Your task to perform on an android device: Empty the shopping cart on costco. Image 0: 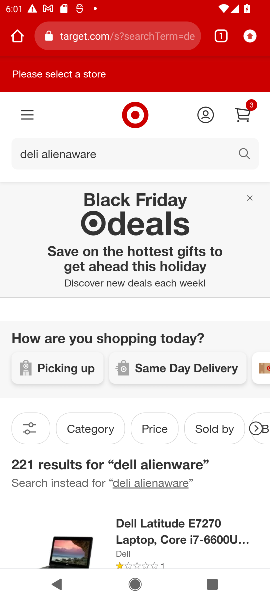
Step 0: click (82, 46)
Your task to perform on an android device: Empty the shopping cart on costco. Image 1: 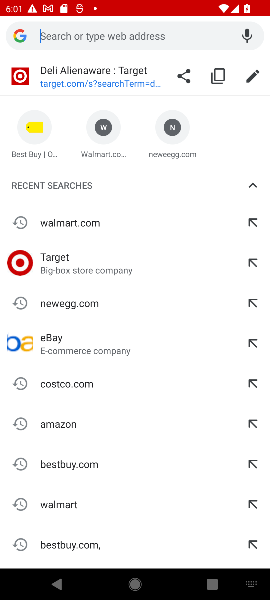
Step 1: click (84, 385)
Your task to perform on an android device: Empty the shopping cart on costco. Image 2: 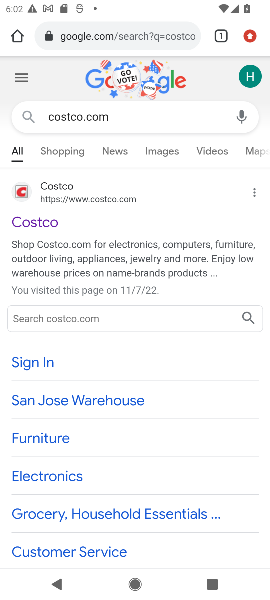
Step 2: click (28, 225)
Your task to perform on an android device: Empty the shopping cart on costco. Image 3: 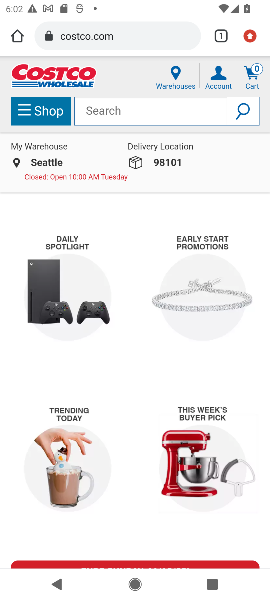
Step 3: click (254, 70)
Your task to perform on an android device: Empty the shopping cart on costco. Image 4: 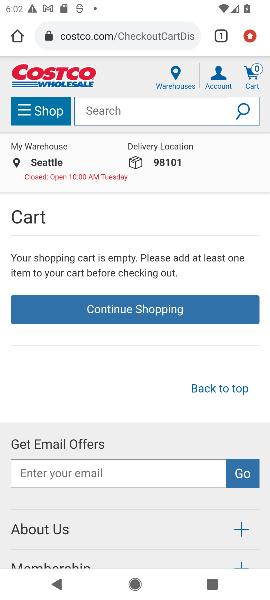
Step 4: task complete